Your task to perform on an android device: Open ESPN.com Image 0: 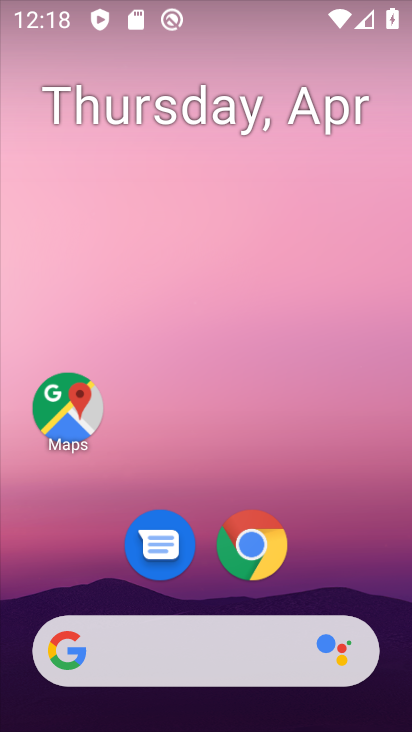
Step 0: click (239, 545)
Your task to perform on an android device: Open ESPN.com Image 1: 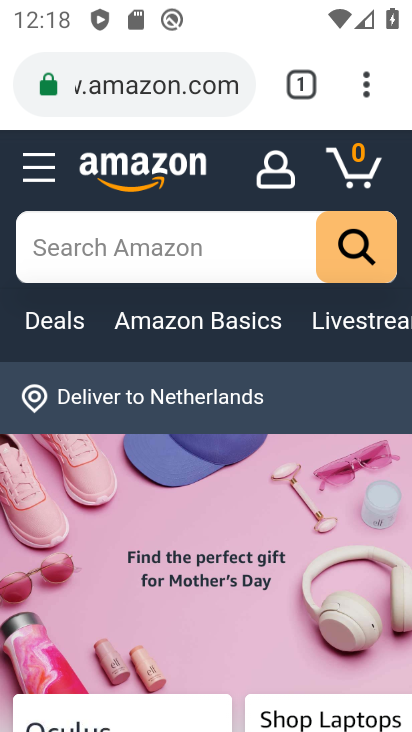
Step 1: click (202, 90)
Your task to perform on an android device: Open ESPN.com Image 2: 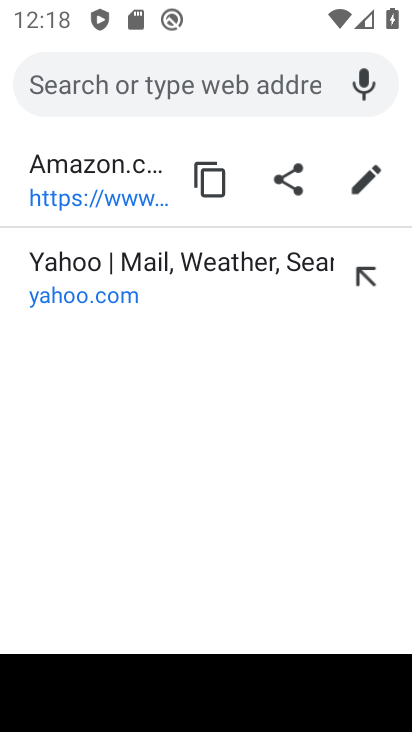
Step 2: type "espn.com"
Your task to perform on an android device: Open ESPN.com Image 3: 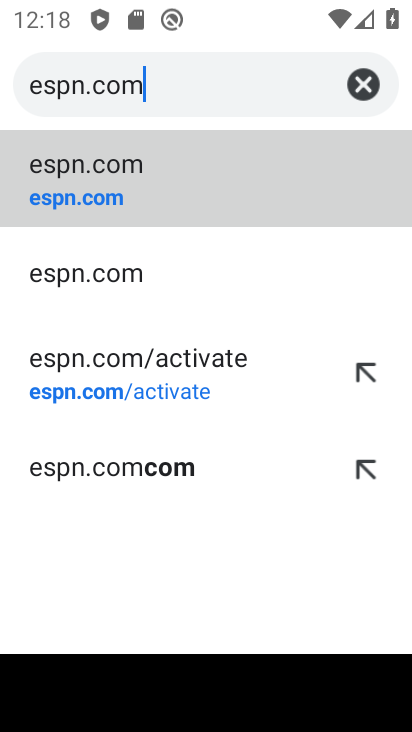
Step 3: click (56, 163)
Your task to perform on an android device: Open ESPN.com Image 4: 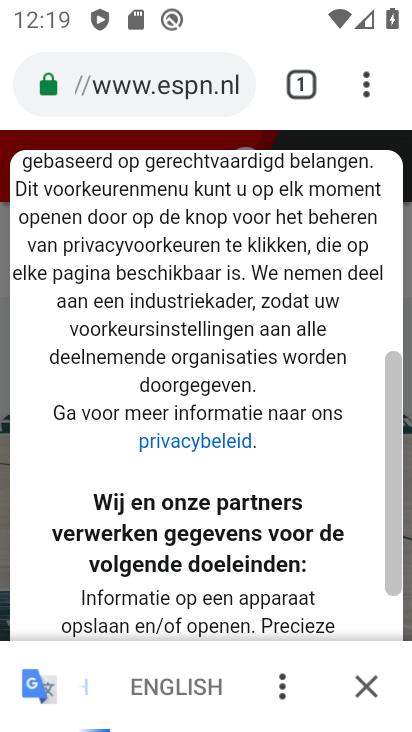
Step 4: task complete